Your task to perform on an android device: turn off airplane mode Image 0: 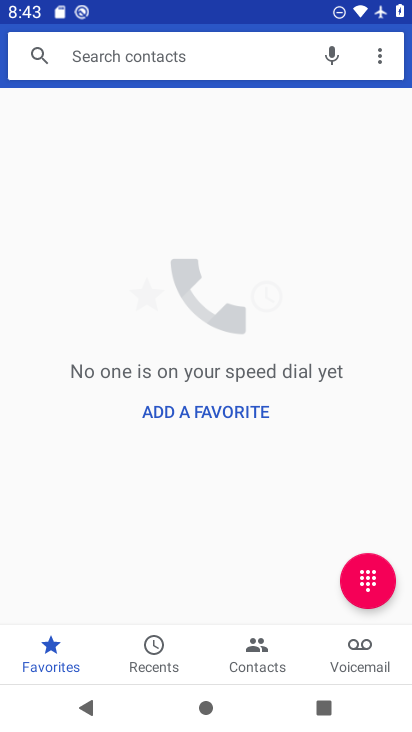
Step 0: press home button
Your task to perform on an android device: turn off airplane mode Image 1: 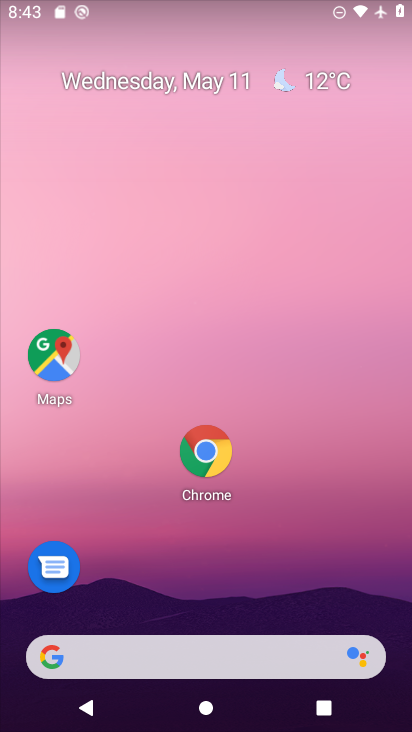
Step 1: drag from (197, 656) to (352, 106)
Your task to perform on an android device: turn off airplane mode Image 2: 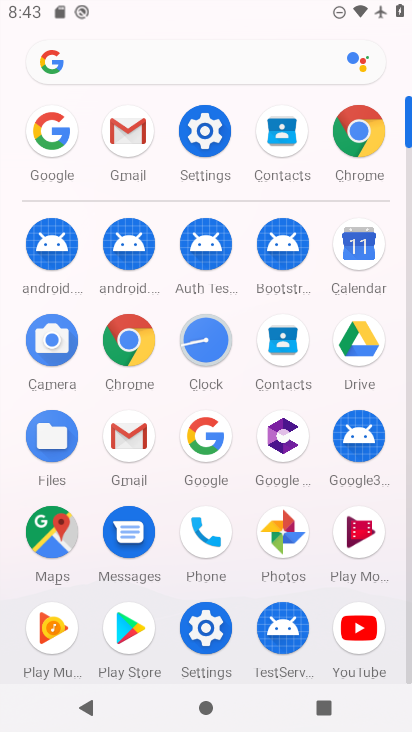
Step 2: click (211, 131)
Your task to perform on an android device: turn off airplane mode Image 3: 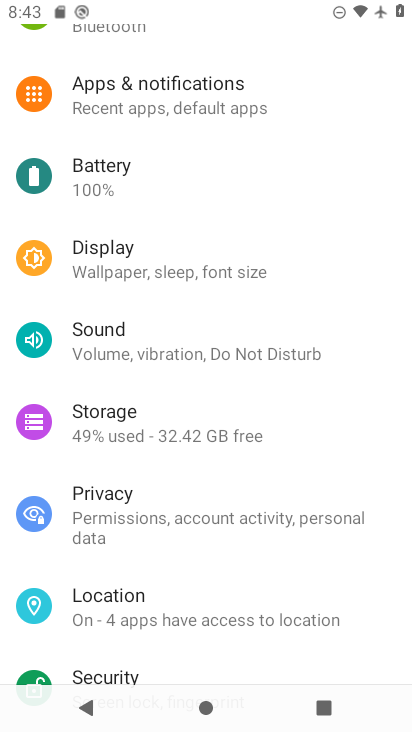
Step 3: drag from (269, 65) to (187, 290)
Your task to perform on an android device: turn off airplane mode Image 4: 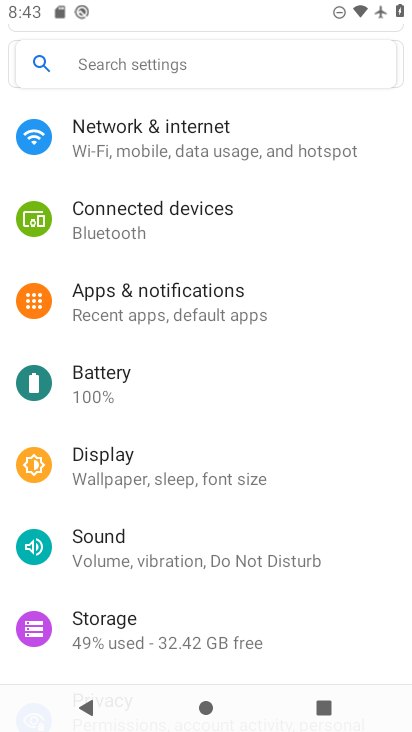
Step 4: click (195, 130)
Your task to perform on an android device: turn off airplane mode Image 5: 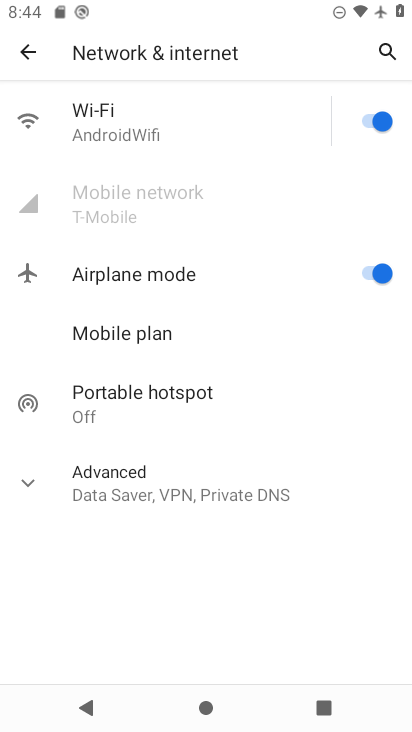
Step 5: click (368, 271)
Your task to perform on an android device: turn off airplane mode Image 6: 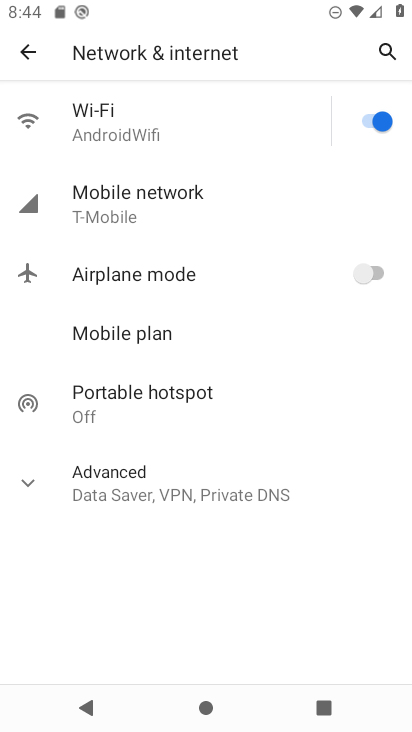
Step 6: task complete